Your task to perform on an android device: check battery use Image 0: 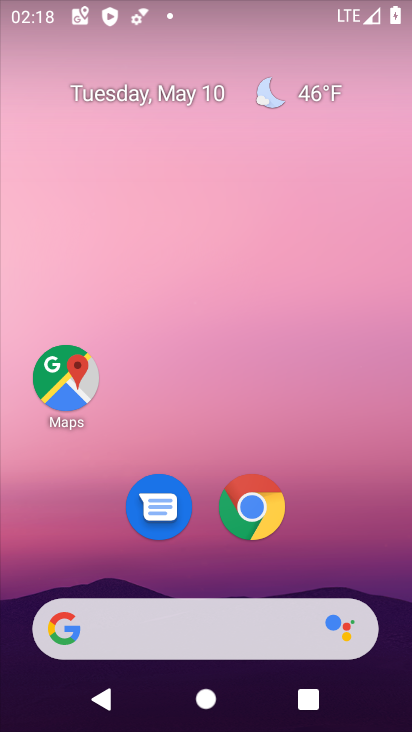
Step 0: press home button
Your task to perform on an android device: check battery use Image 1: 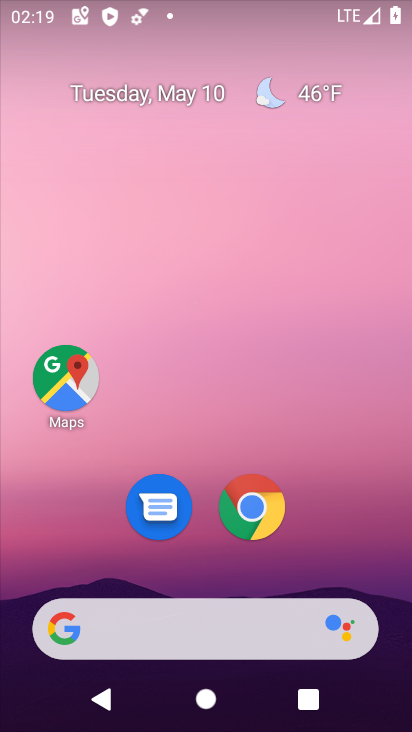
Step 1: drag from (246, 645) to (249, 284)
Your task to perform on an android device: check battery use Image 2: 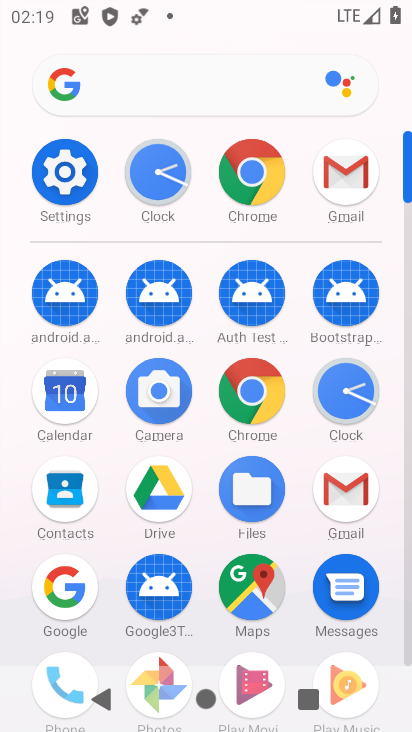
Step 2: click (53, 173)
Your task to perform on an android device: check battery use Image 3: 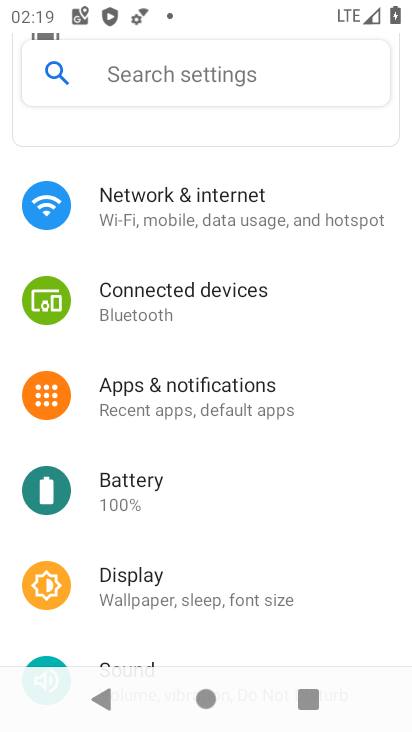
Step 3: click (171, 493)
Your task to perform on an android device: check battery use Image 4: 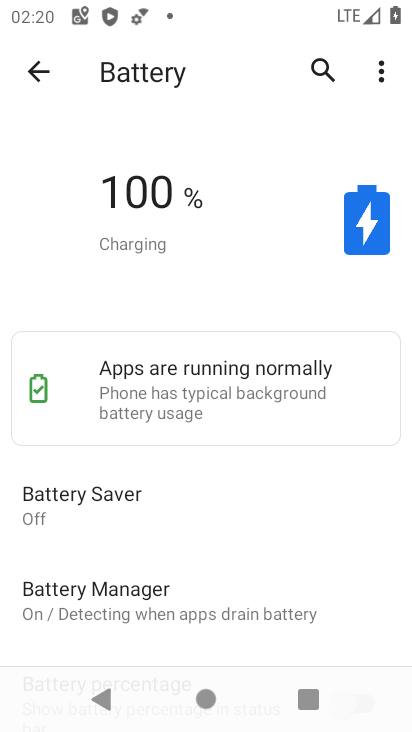
Step 4: task complete